Your task to perform on an android device: change notifications settings Image 0: 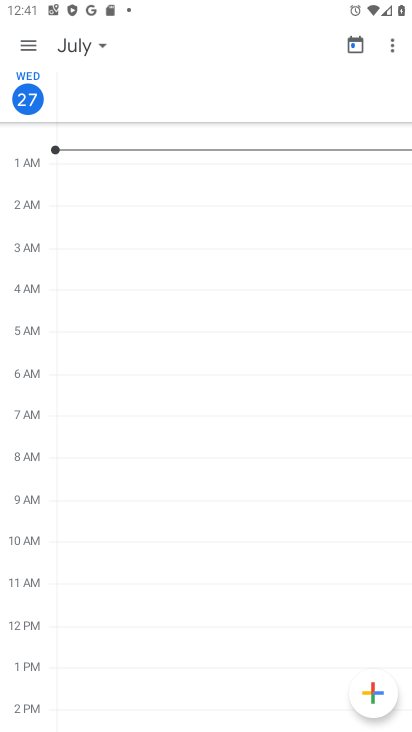
Step 0: press home button
Your task to perform on an android device: change notifications settings Image 1: 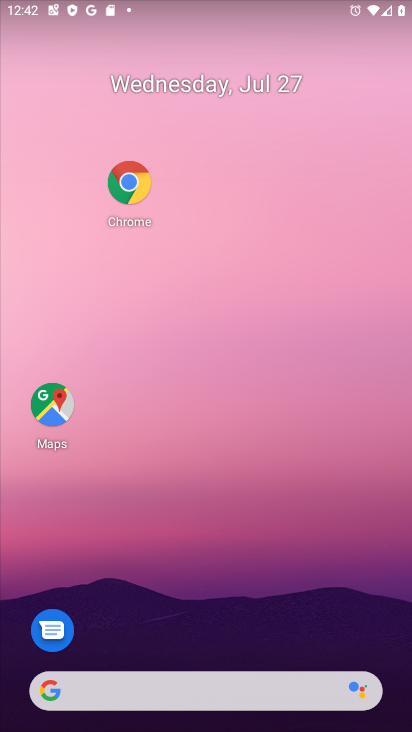
Step 1: drag from (193, 658) to (212, 207)
Your task to perform on an android device: change notifications settings Image 2: 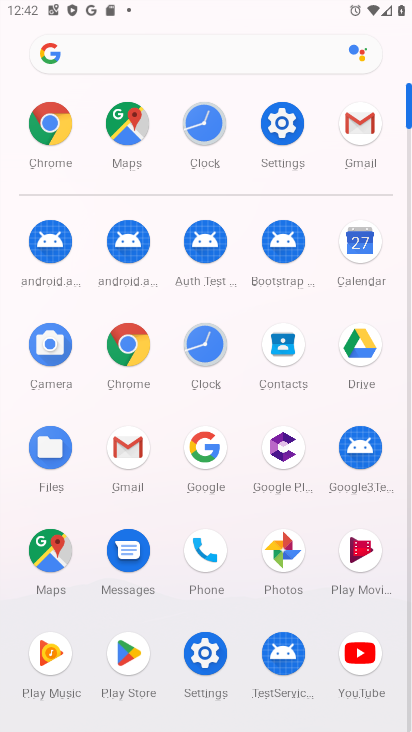
Step 2: click (282, 113)
Your task to perform on an android device: change notifications settings Image 3: 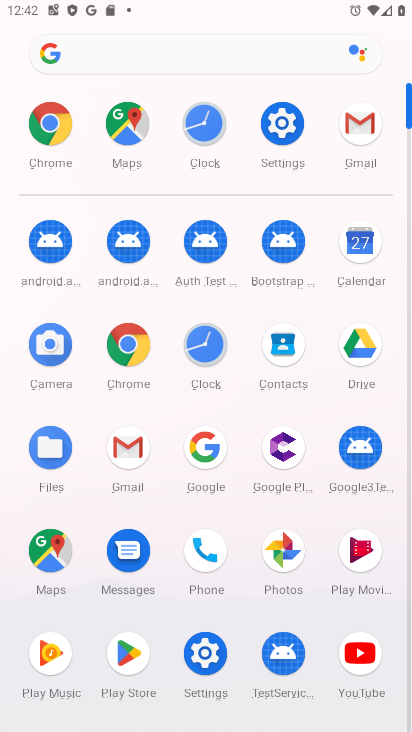
Step 3: click (282, 113)
Your task to perform on an android device: change notifications settings Image 4: 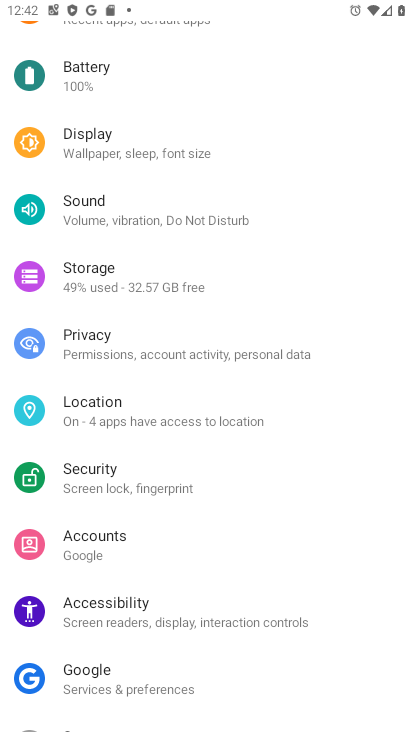
Step 4: drag from (296, 90) to (294, 530)
Your task to perform on an android device: change notifications settings Image 5: 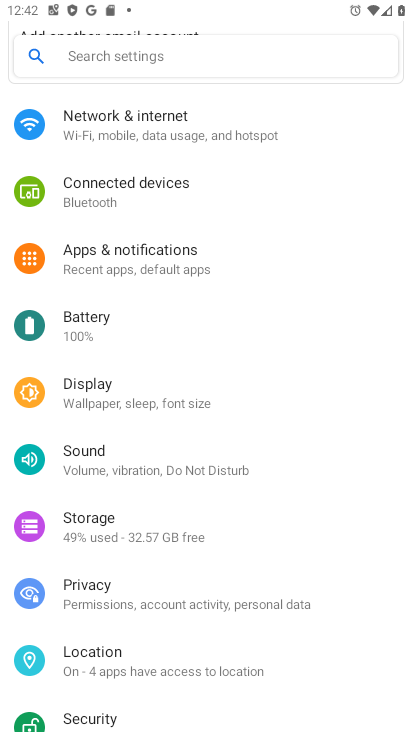
Step 5: click (168, 256)
Your task to perform on an android device: change notifications settings Image 6: 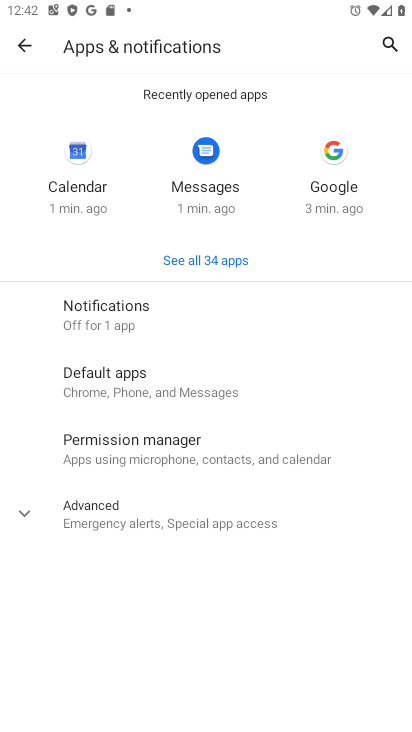
Step 6: task complete